Your task to perform on an android device: toggle notification dots Image 0: 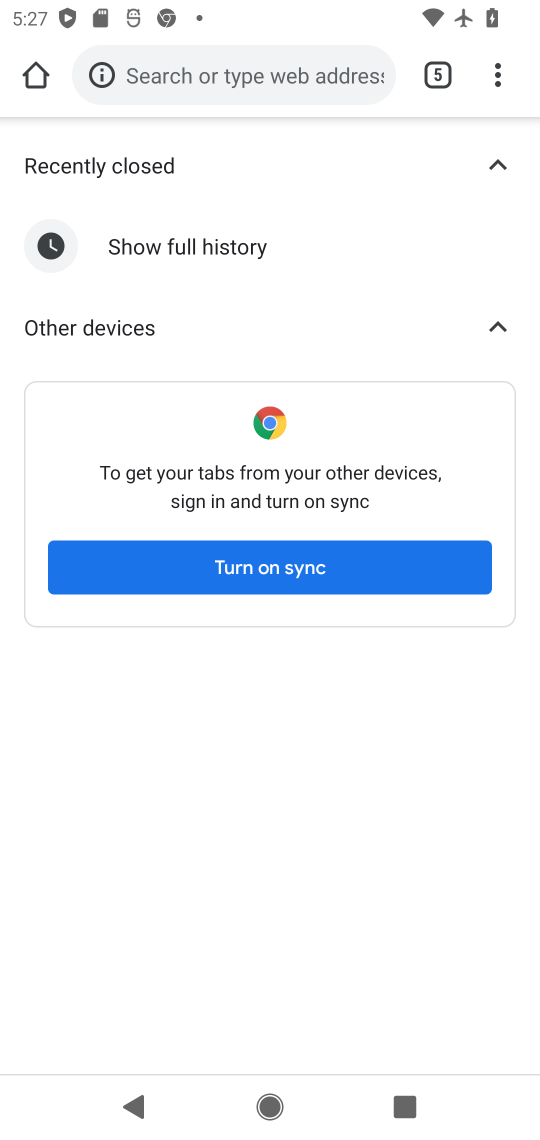
Step 0: press home button
Your task to perform on an android device: toggle notification dots Image 1: 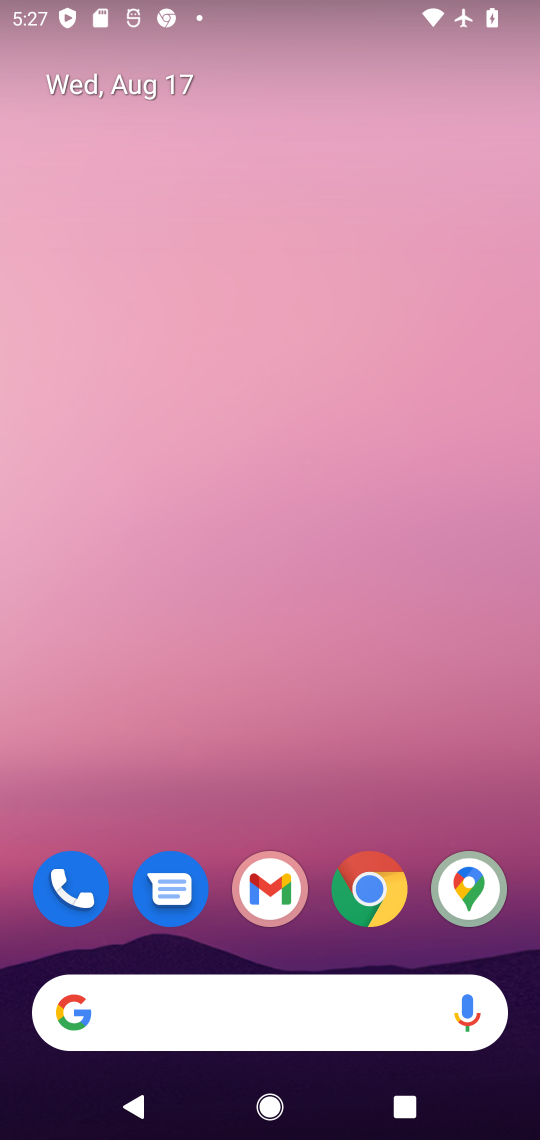
Step 1: drag from (289, 785) to (231, 115)
Your task to perform on an android device: toggle notification dots Image 2: 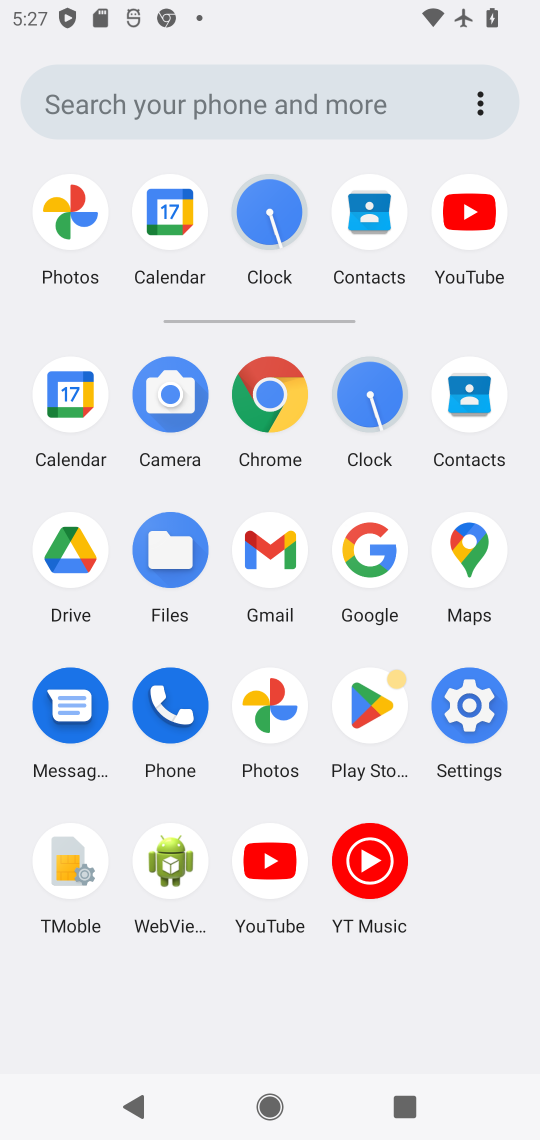
Step 2: click (466, 710)
Your task to perform on an android device: toggle notification dots Image 3: 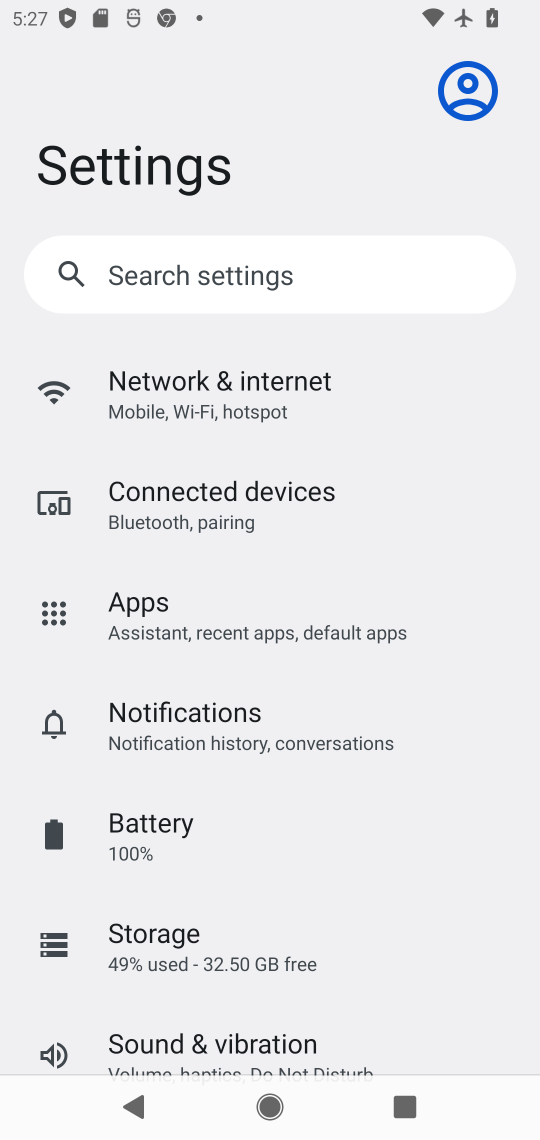
Step 3: click (216, 709)
Your task to perform on an android device: toggle notification dots Image 4: 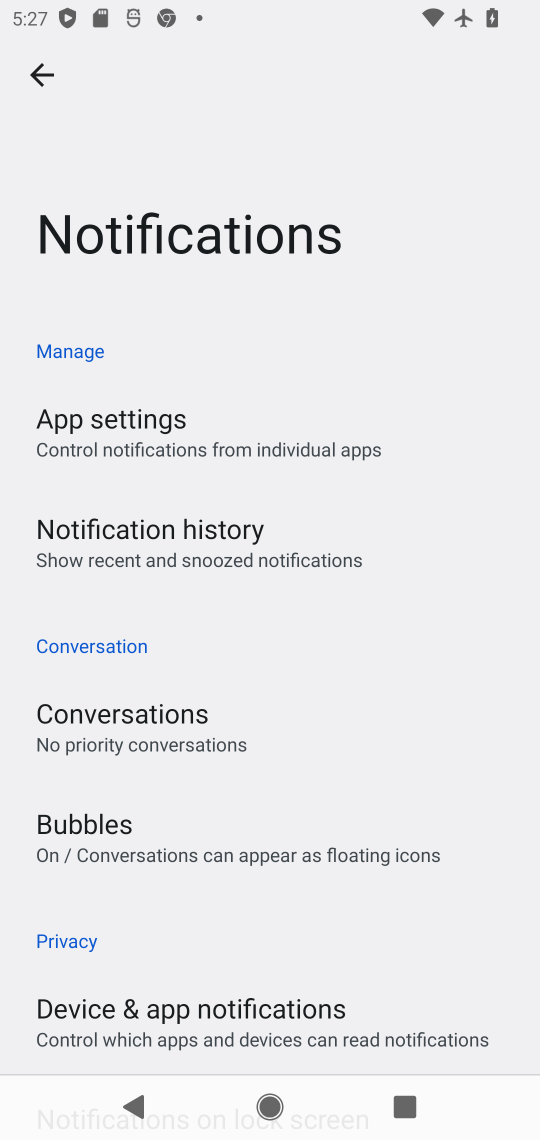
Step 4: drag from (307, 914) to (287, 335)
Your task to perform on an android device: toggle notification dots Image 5: 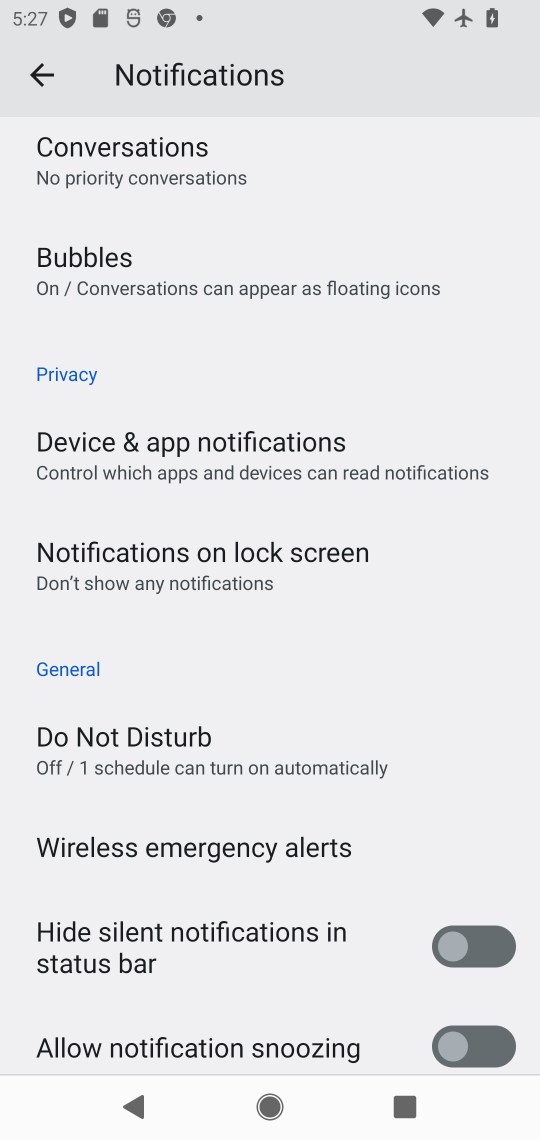
Step 5: drag from (419, 850) to (341, 348)
Your task to perform on an android device: toggle notification dots Image 6: 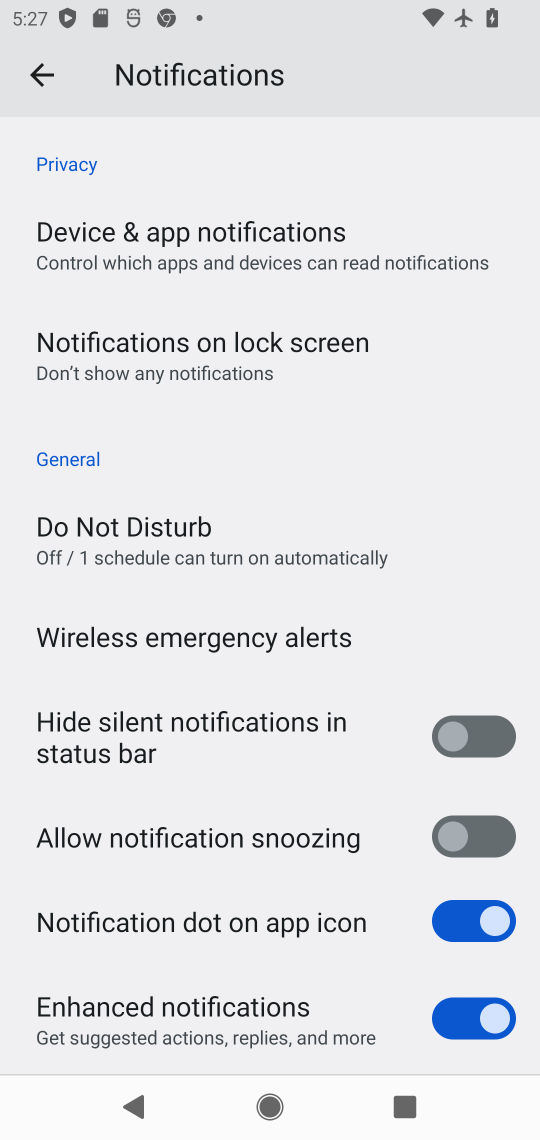
Step 6: click (469, 926)
Your task to perform on an android device: toggle notification dots Image 7: 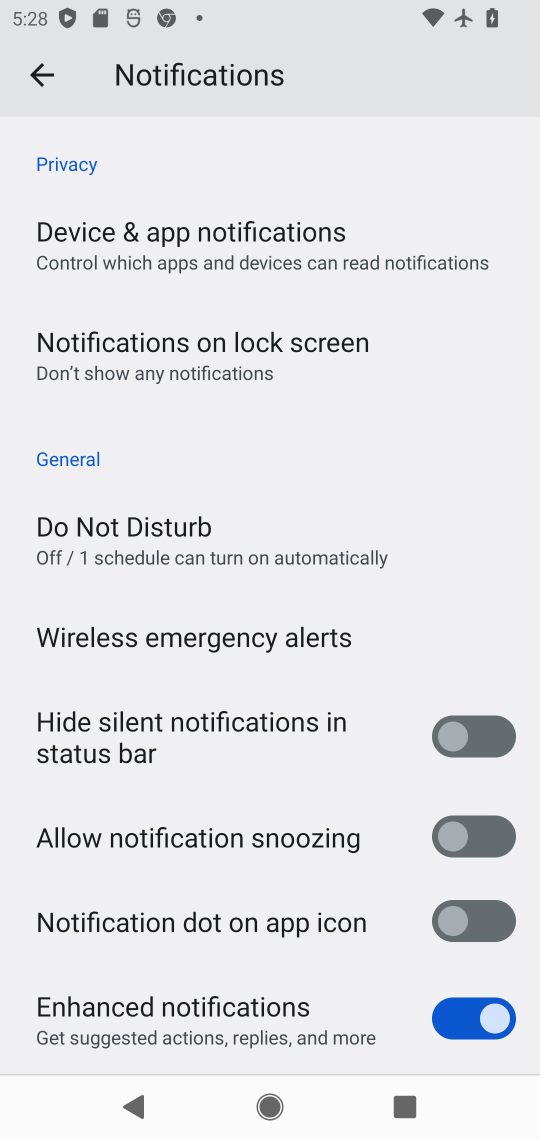
Step 7: task complete